Your task to perform on an android device: Open the phone app and click the voicemail tab. Image 0: 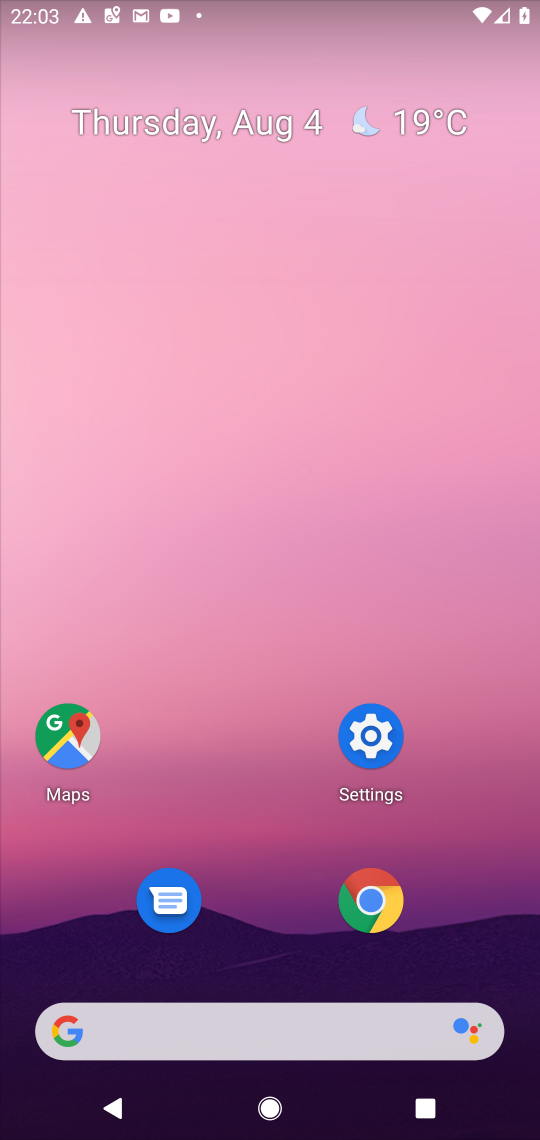
Step 0: drag from (225, 1033) to (416, 128)
Your task to perform on an android device: Open the phone app and click the voicemail tab. Image 1: 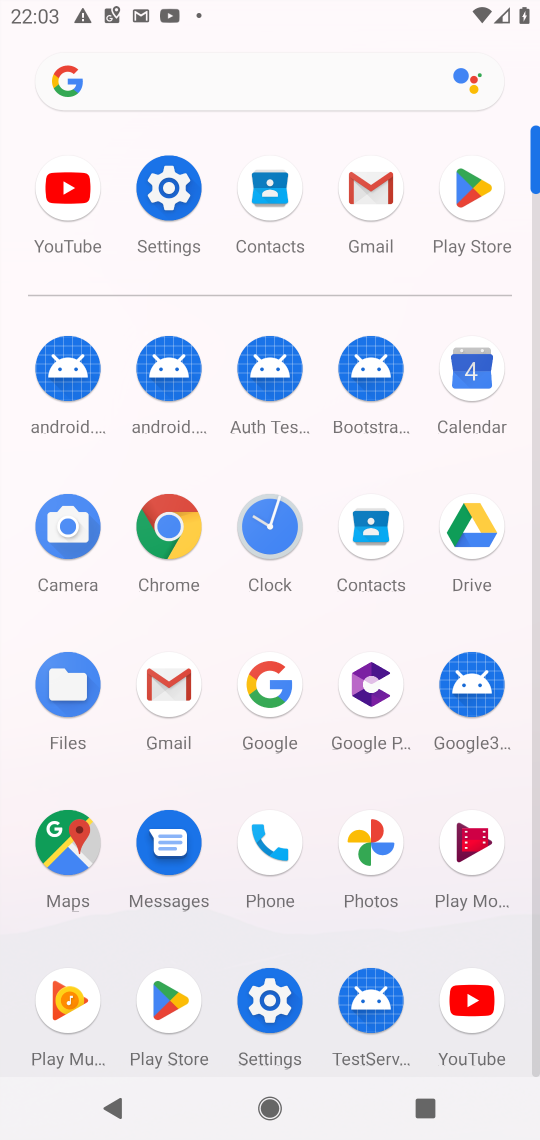
Step 1: click (267, 851)
Your task to perform on an android device: Open the phone app and click the voicemail tab. Image 2: 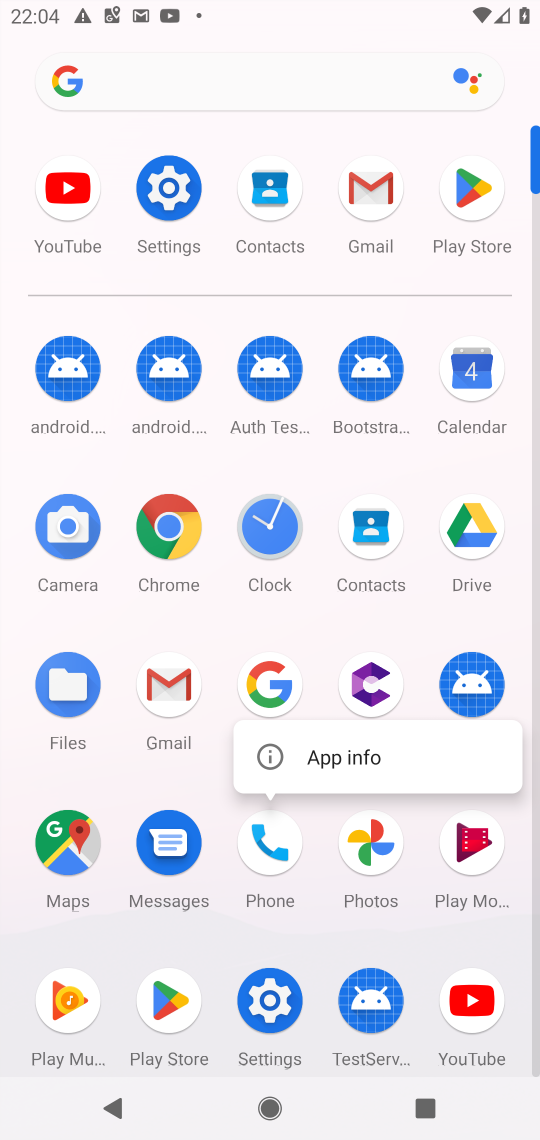
Step 2: click (267, 849)
Your task to perform on an android device: Open the phone app and click the voicemail tab. Image 3: 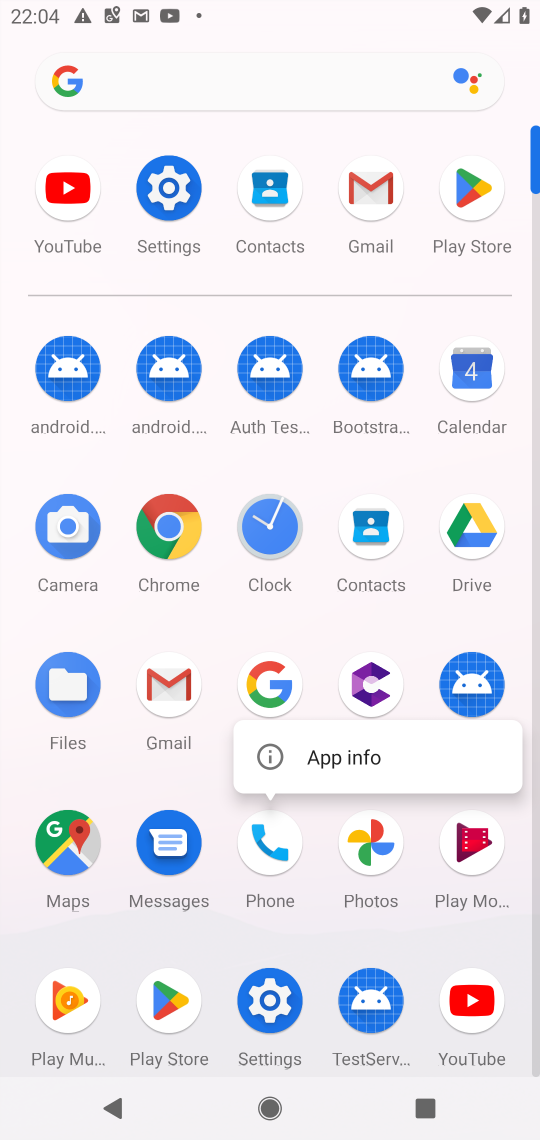
Step 3: click (267, 851)
Your task to perform on an android device: Open the phone app and click the voicemail tab. Image 4: 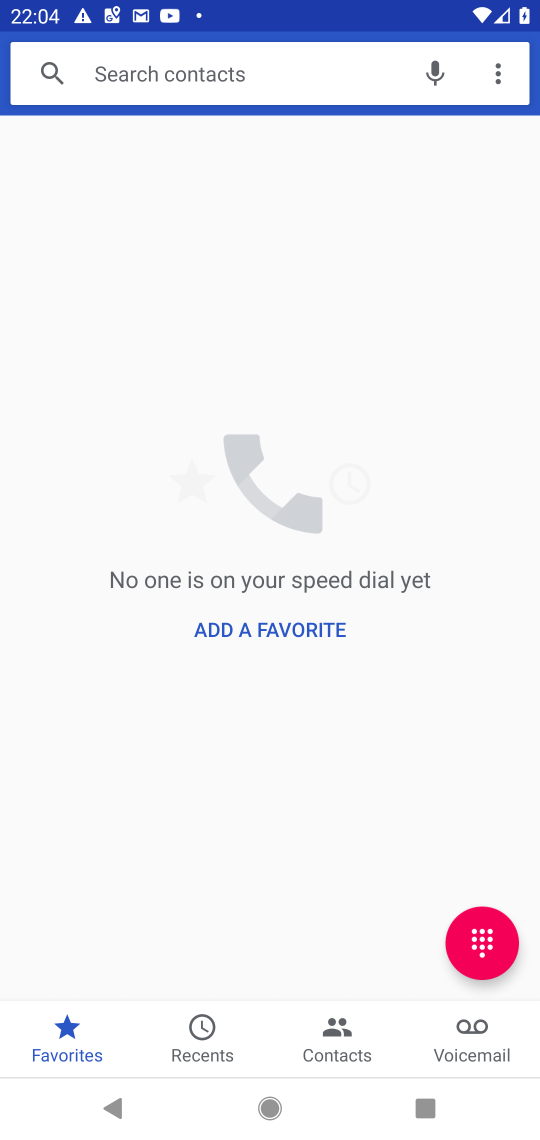
Step 4: click (488, 1038)
Your task to perform on an android device: Open the phone app and click the voicemail tab. Image 5: 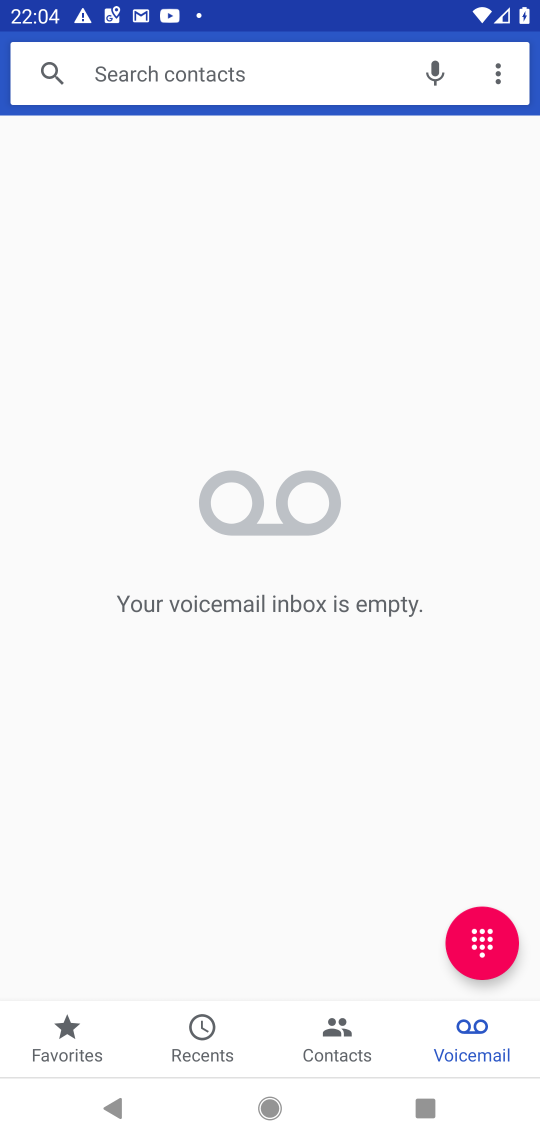
Step 5: task complete